Your task to perform on an android device: Clear the cart on ebay.com. Add duracell triple a to the cart on ebay.com Image 0: 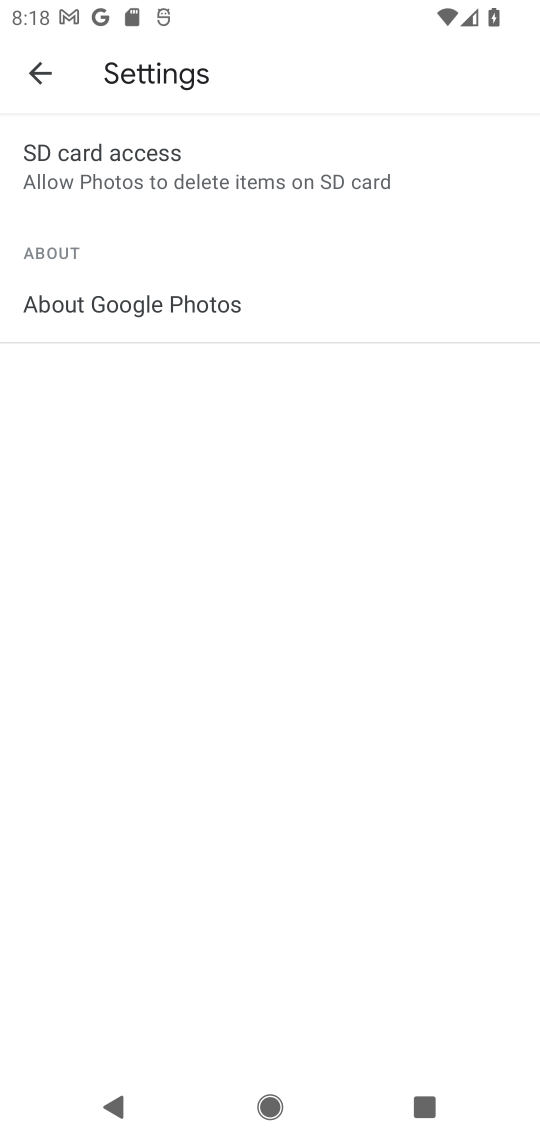
Step 0: press home button
Your task to perform on an android device: Clear the cart on ebay.com. Add duracell triple a to the cart on ebay.com Image 1: 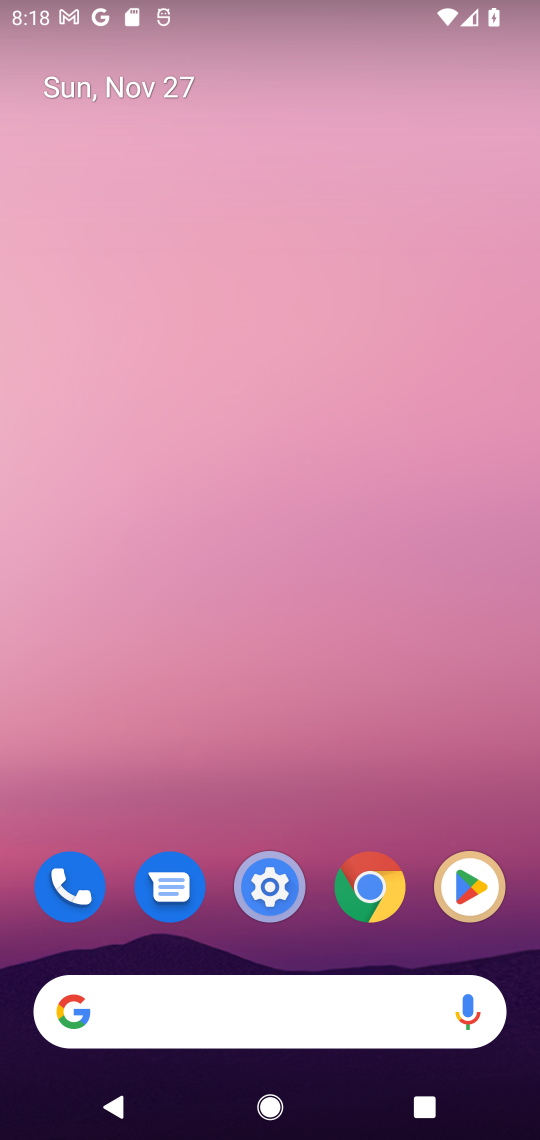
Step 1: click (206, 996)
Your task to perform on an android device: Clear the cart on ebay.com. Add duracell triple a to the cart on ebay.com Image 2: 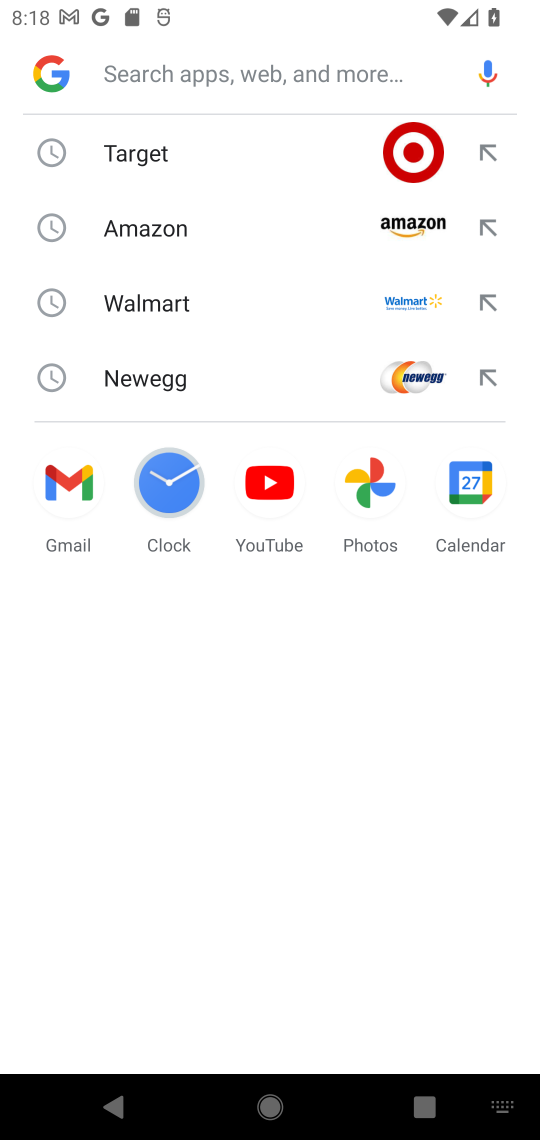
Step 2: type "ebay.com"
Your task to perform on an android device: Clear the cart on ebay.com. Add duracell triple a to the cart on ebay.com Image 3: 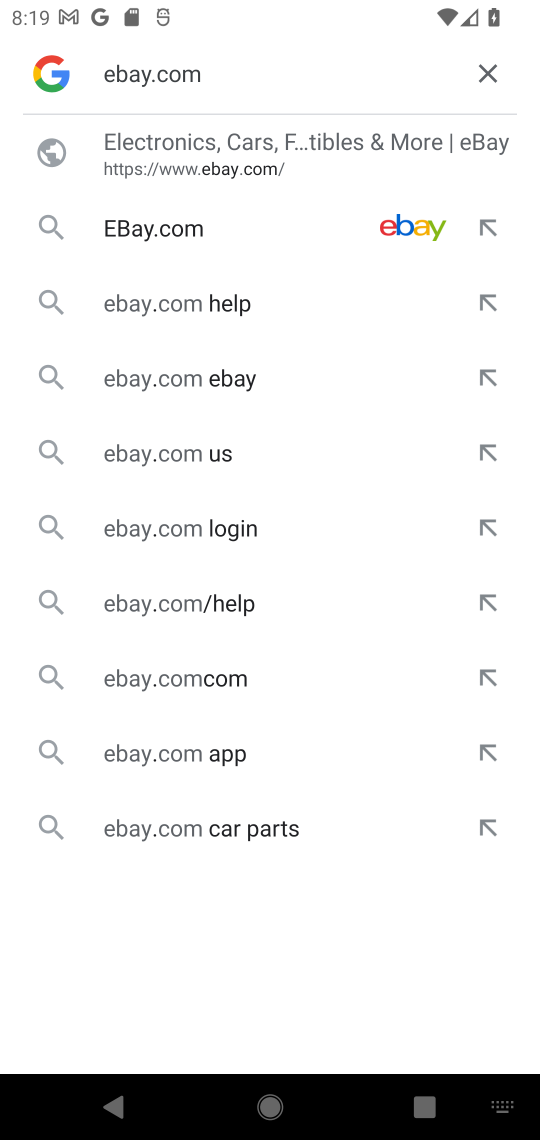
Step 3: click (196, 188)
Your task to perform on an android device: Clear the cart on ebay.com. Add duracell triple a to the cart on ebay.com Image 4: 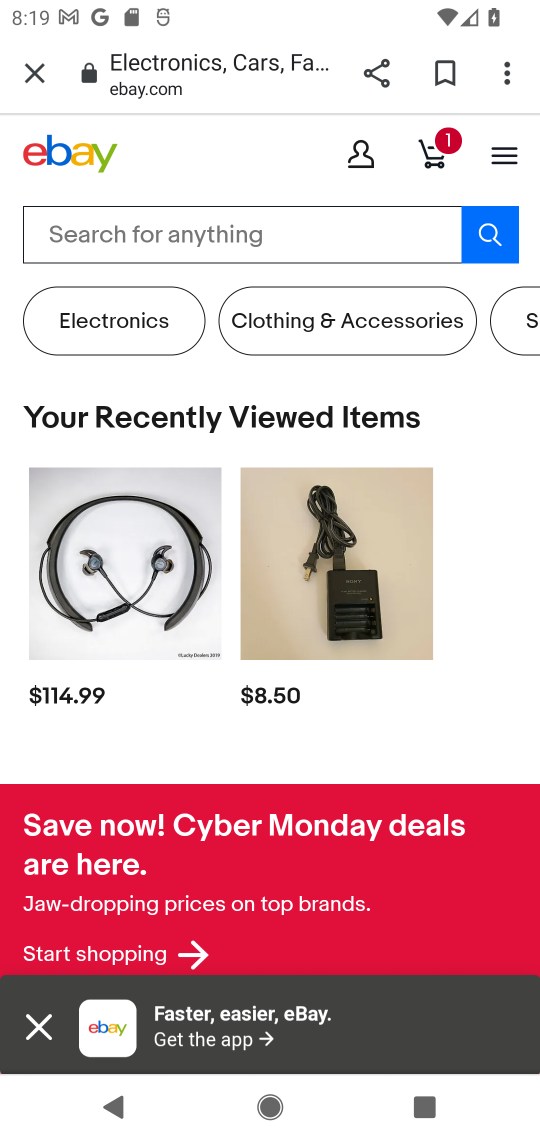
Step 4: click (235, 238)
Your task to perform on an android device: Clear the cart on ebay.com. Add duracell triple a to the cart on ebay.com Image 5: 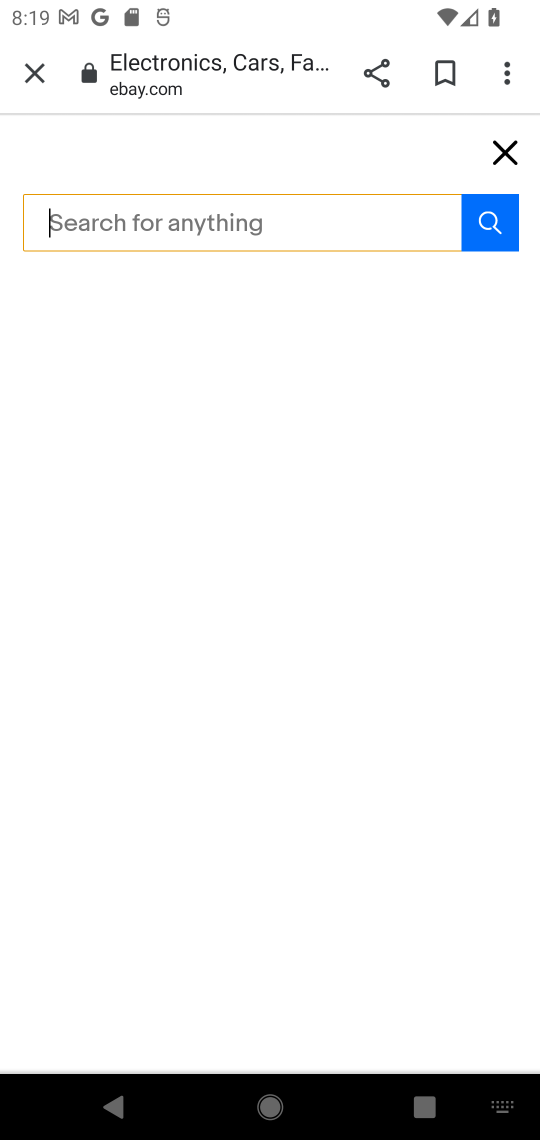
Step 5: type "duracell "
Your task to perform on an android device: Clear the cart on ebay.com. Add duracell triple a to the cart on ebay.com Image 6: 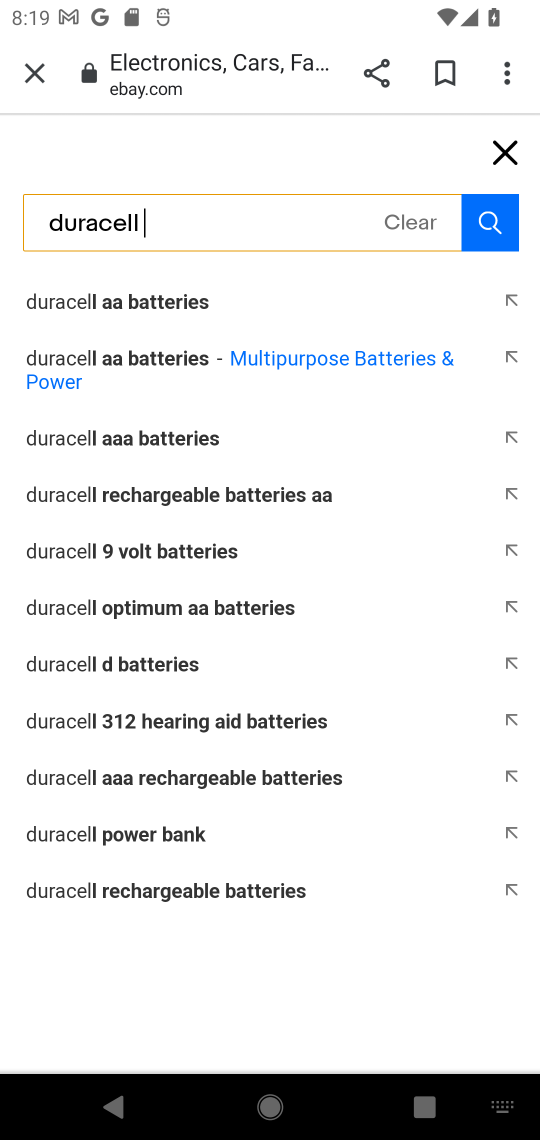
Step 6: click (120, 286)
Your task to perform on an android device: Clear the cart on ebay.com. Add duracell triple a to the cart on ebay.com Image 7: 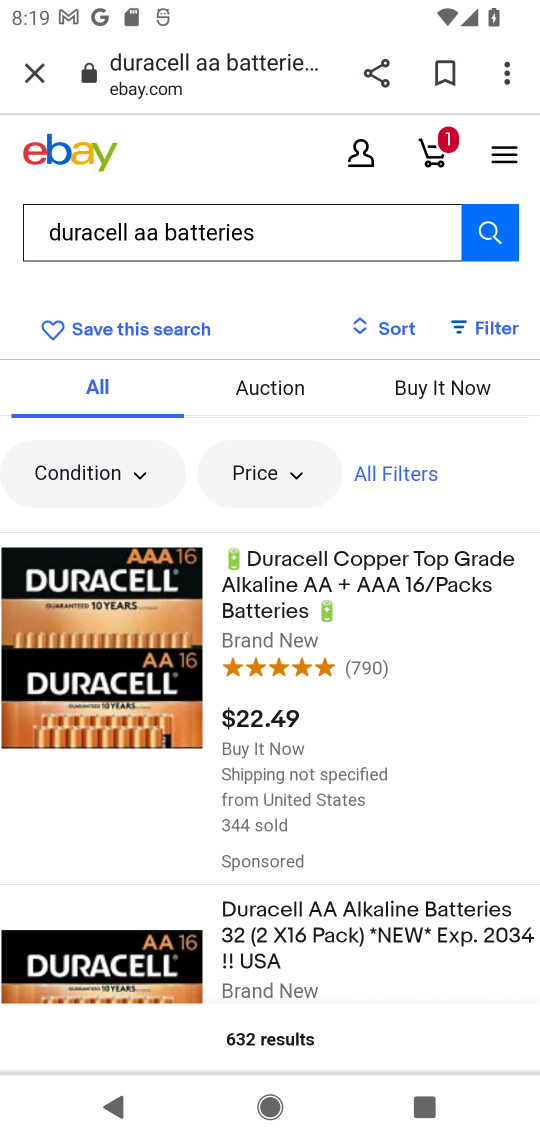
Step 7: click (252, 607)
Your task to perform on an android device: Clear the cart on ebay.com. Add duracell triple a to the cart on ebay.com Image 8: 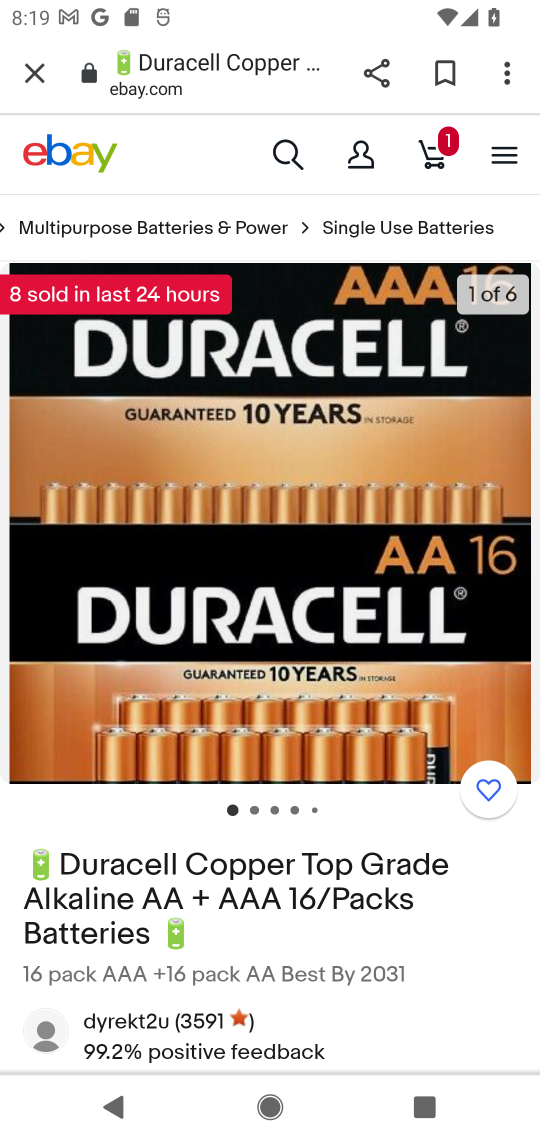
Step 8: drag from (289, 834) to (447, 142)
Your task to perform on an android device: Clear the cart on ebay.com. Add duracell triple a to the cart on ebay.com Image 9: 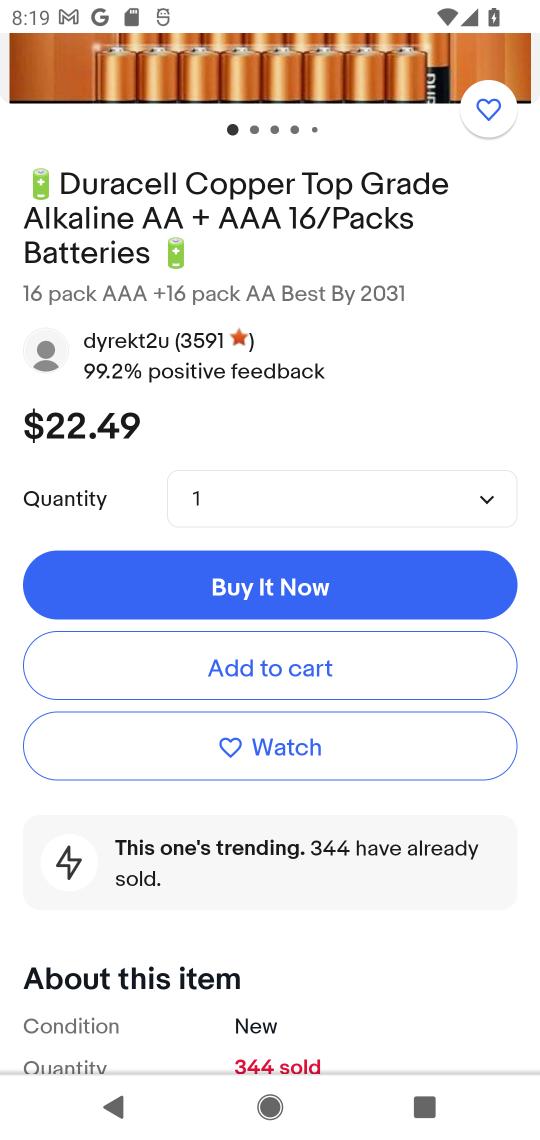
Step 9: click (300, 648)
Your task to perform on an android device: Clear the cart on ebay.com. Add duracell triple a to the cart on ebay.com Image 10: 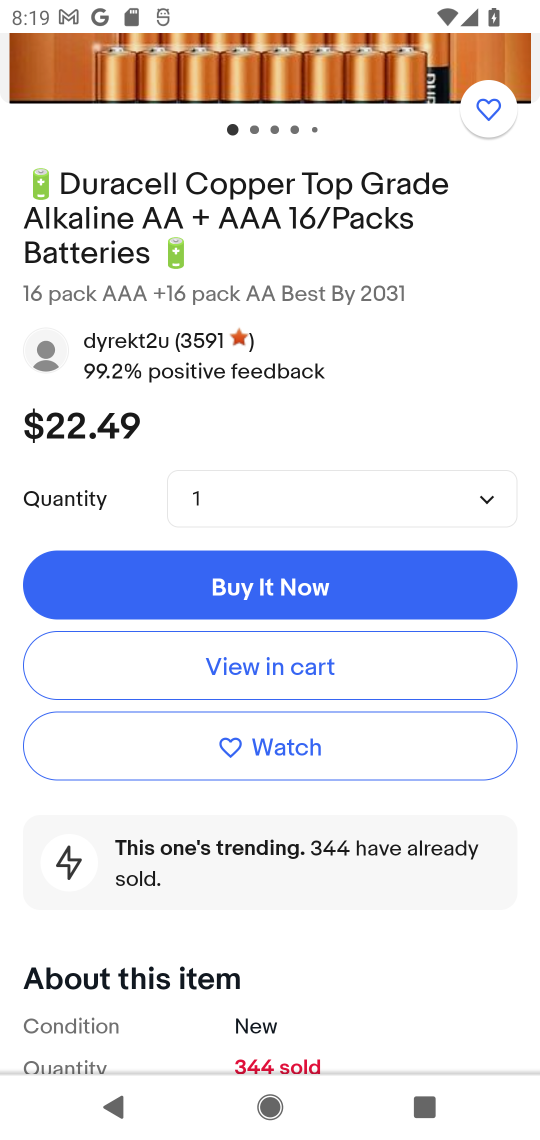
Step 10: task complete